Your task to perform on an android device: open sync settings in chrome Image 0: 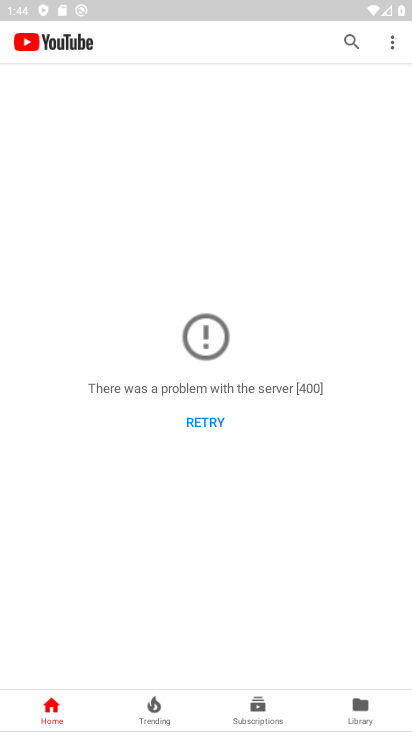
Step 0: press home button
Your task to perform on an android device: open sync settings in chrome Image 1: 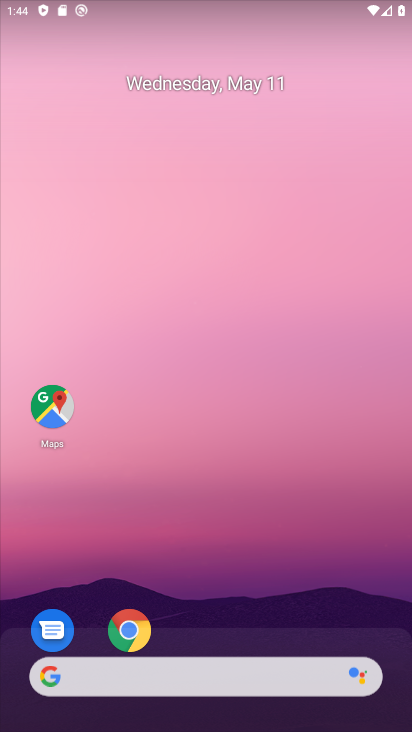
Step 1: click (136, 637)
Your task to perform on an android device: open sync settings in chrome Image 2: 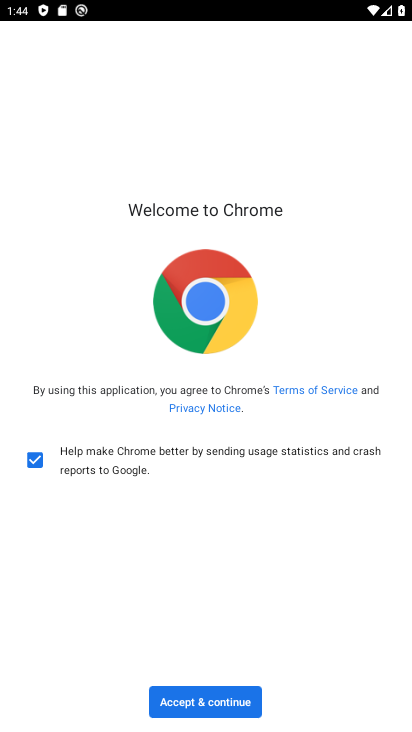
Step 2: click (193, 699)
Your task to perform on an android device: open sync settings in chrome Image 3: 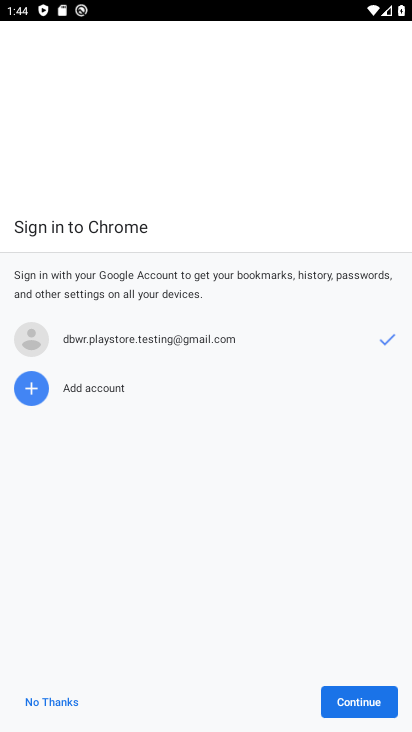
Step 3: click (354, 703)
Your task to perform on an android device: open sync settings in chrome Image 4: 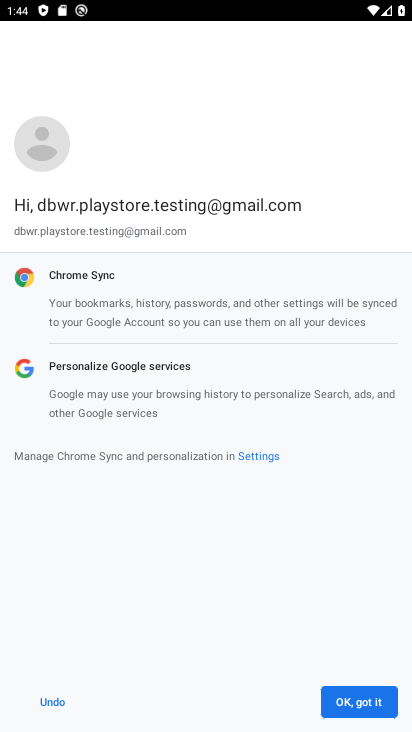
Step 4: click (354, 703)
Your task to perform on an android device: open sync settings in chrome Image 5: 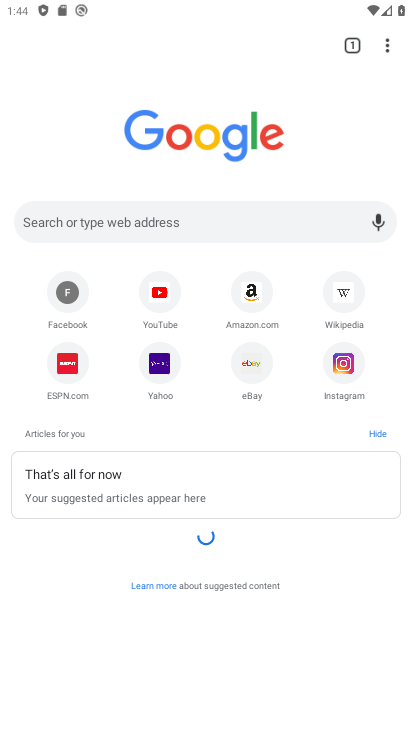
Step 5: click (388, 46)
Your task to perform on an android device: open sync settings in chrome Image 6: 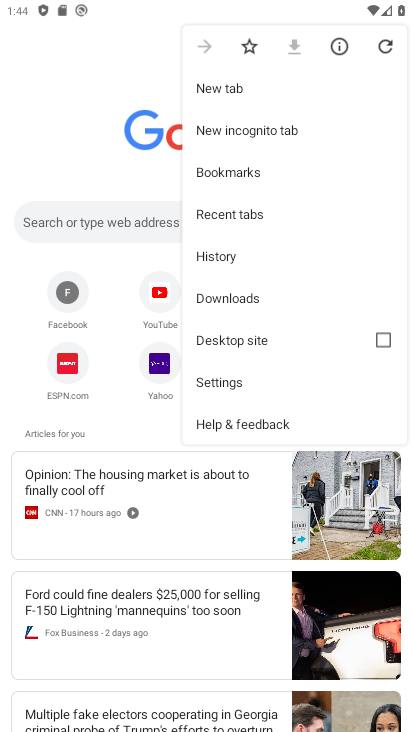
Step 6: click (217, 380)
Your task to perform on an android device: open sync settings in chrome Image 7: 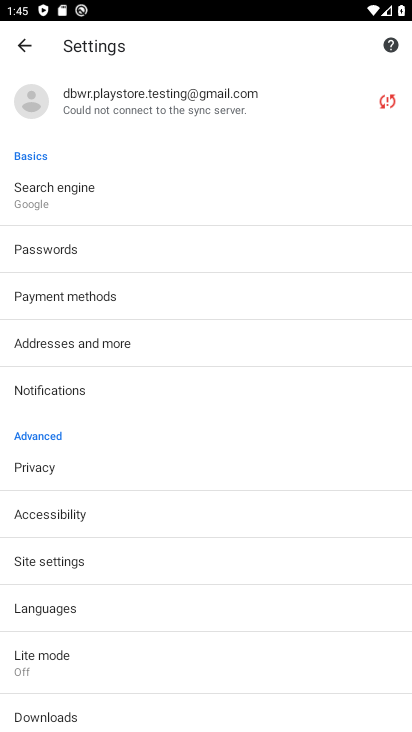
Step 7: click (54, 562)
Your task to perform on an android device: open sync settings in chrome Image 8: 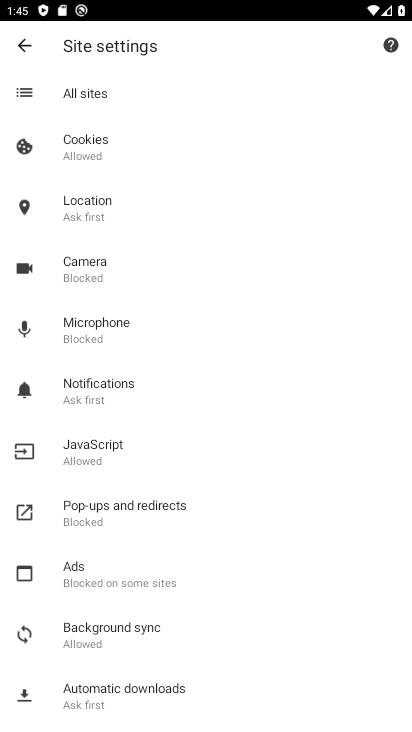
Step 8: click (111, 627)
Your task to perform on an android device: open sync settings in chrome Image 9: 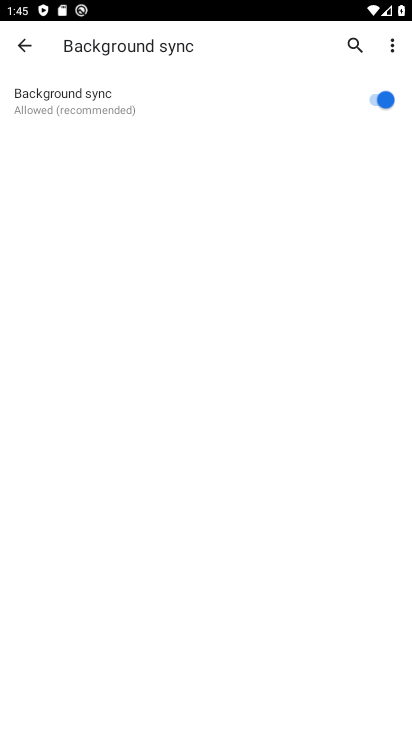
Step 9: task complete